Your task to perform on an android device: allow notifications from all sites in the chrome app Image 0: 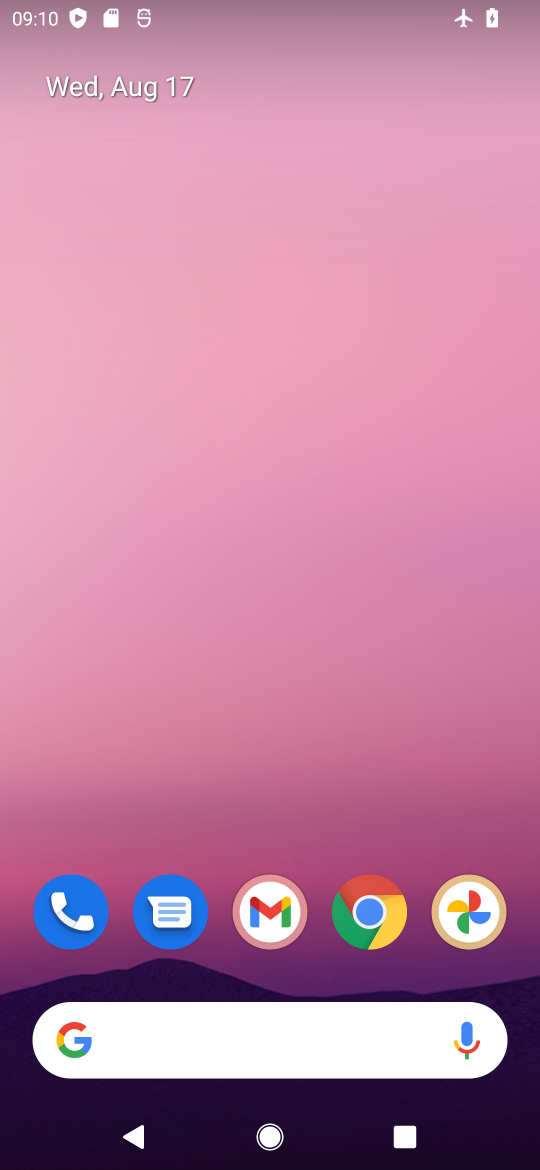
Step 0: click (364, 926)
Your task to perform on an android device: allow notifications from all sites in the chrome app Image 1: 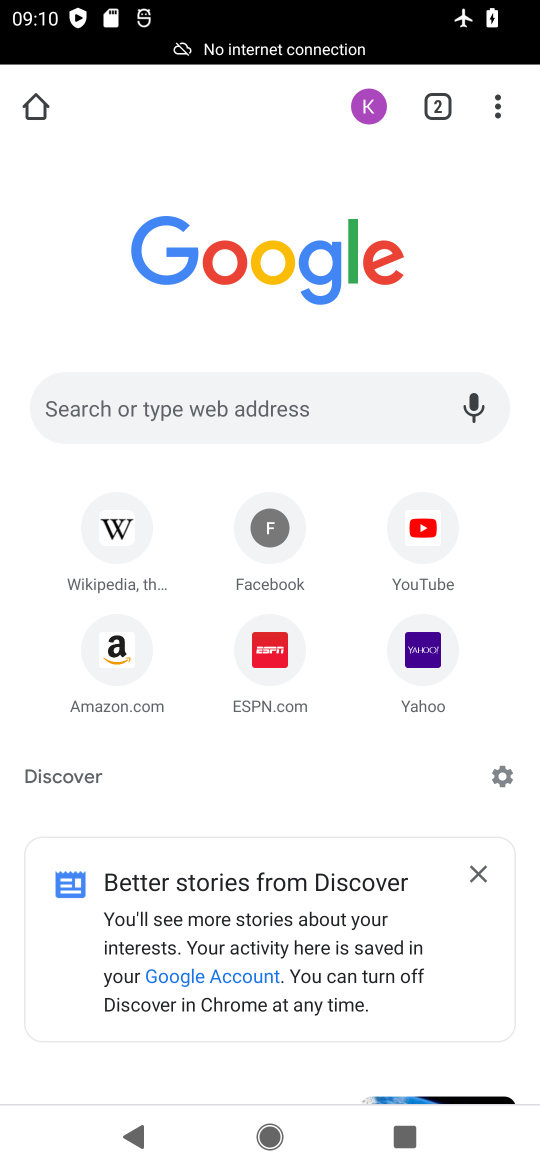
Step 1: click (499, 108)
Your task to perform on an android device: allow notifications from all sites in the chrome app Image 2: 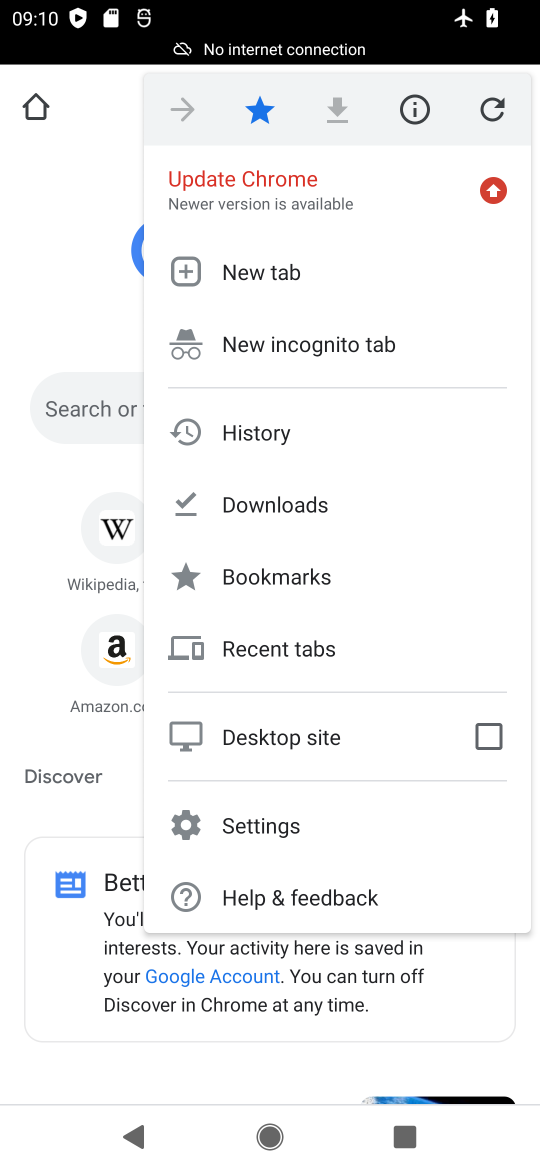
Step 2: click (276, 825)
Your task to perform on an android device: allow notifications from all sites in the chrome app Image 3: 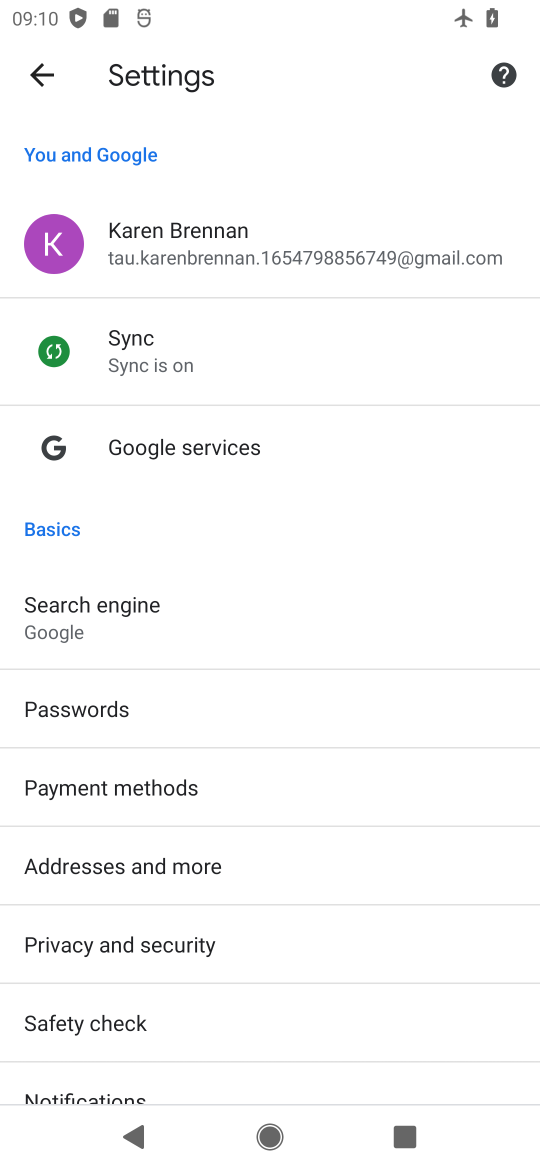
Step 3: drag from (153, 997) to (154, 401)
Your task to perform on an android device: allow notifications from all sites in the chrome app Image 4: 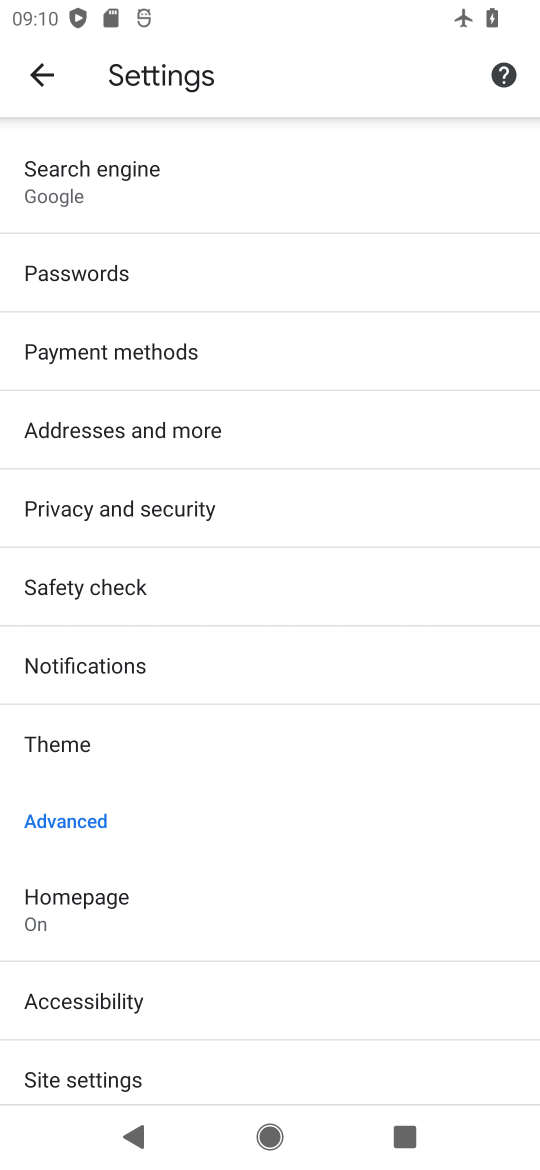
Step 4: click (79, 1080)
Your task to perform on an android device: allow notifications from all sites in the chrome app Image 5: 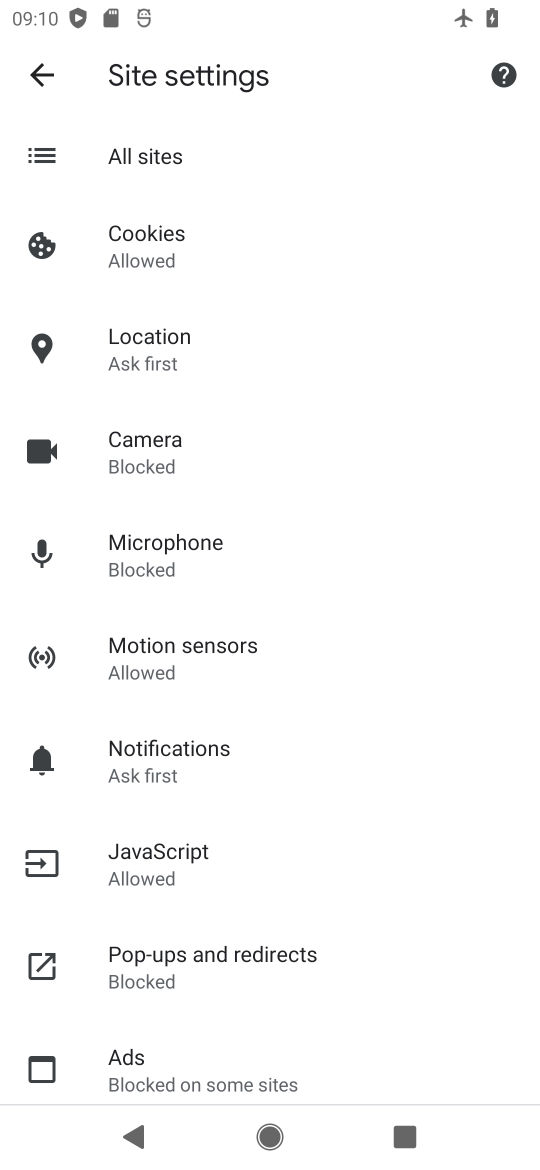
Step 5: click (163, 774)
Your task to perform on an android device: allow notifications from all sites in the chrome app Image 6: 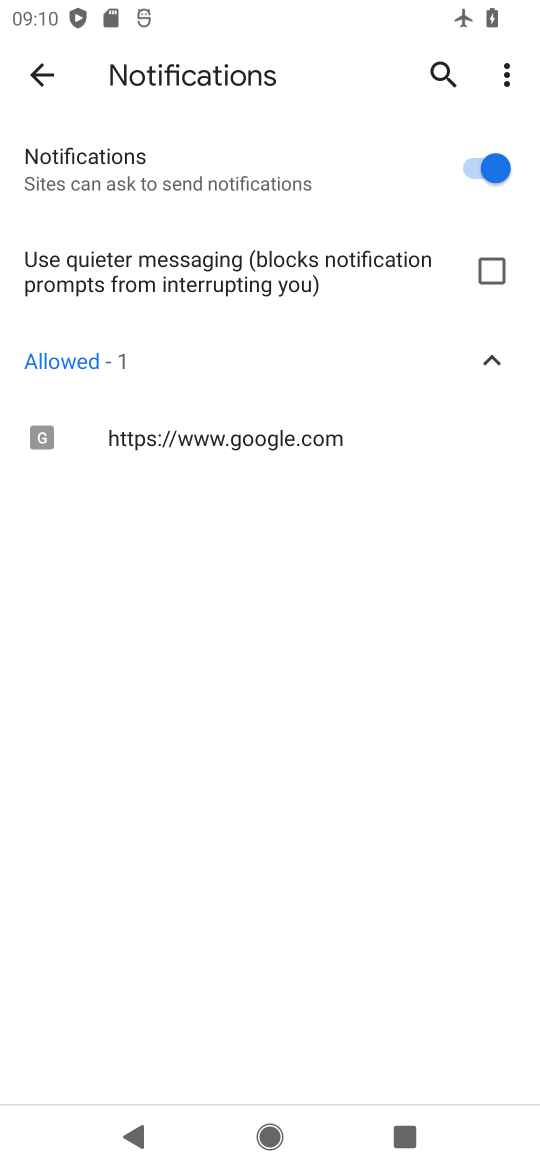
Step 6: task complete